Your task to perform on an android device: Is it going to rain today? Image 0: 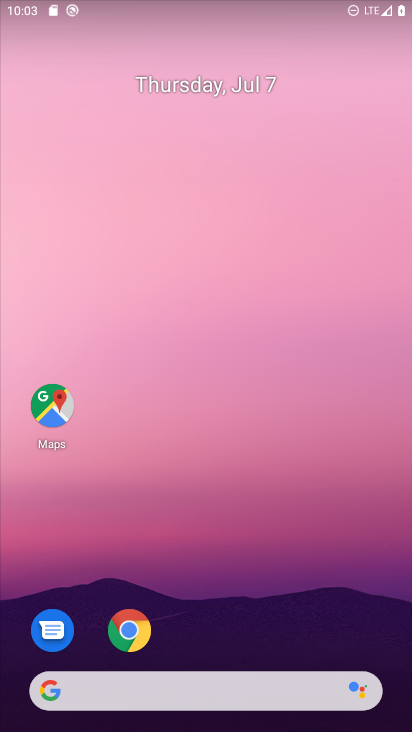
Step 0: drag from (217, 628) to (211, 221)
Your task to perform on an android device: Is it going to rain today? Image 1: 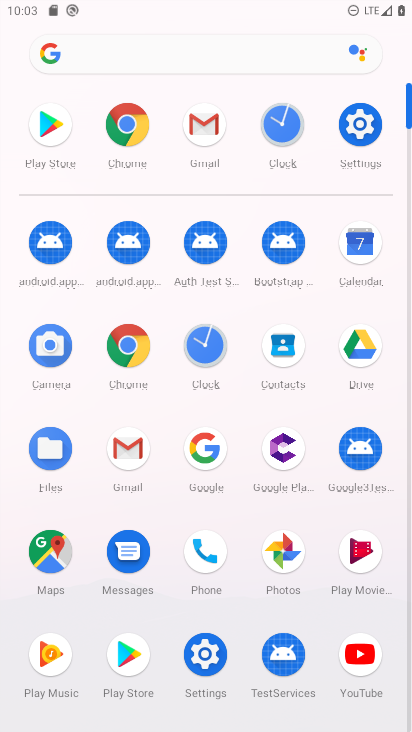
Step 1: click (203, 452)
Your task to perform on an android device: Is it going to rain today? Image 2: 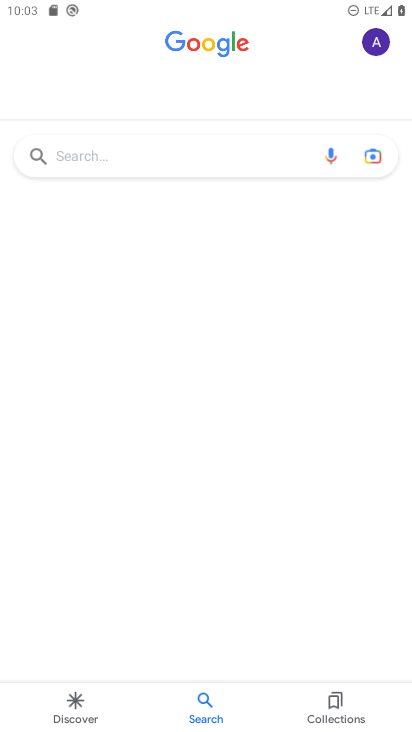
Step 2: click (124, 162)
Your task to perform on an android device: Is it going to rain today? Image 3: 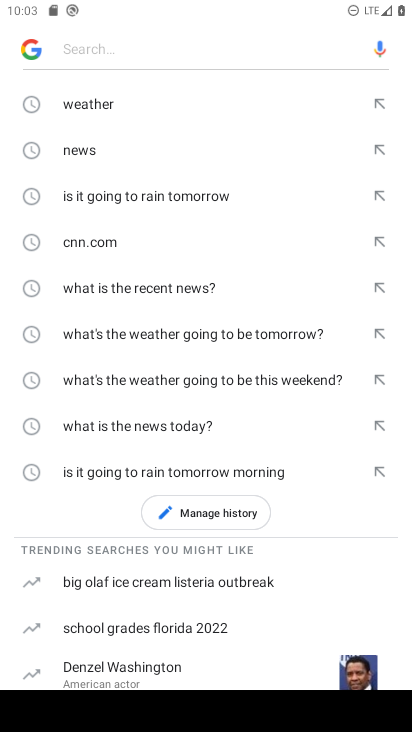
Step 3: click (109, 106)
Your task to perform on an android device: Is it going to rain today? Image 4: 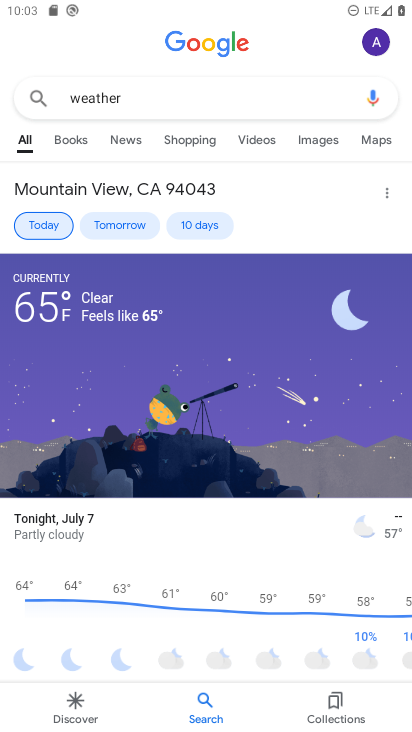
Step 4: task complete